Your task to perform on an android device: Go to Yahoo.com Image 0: 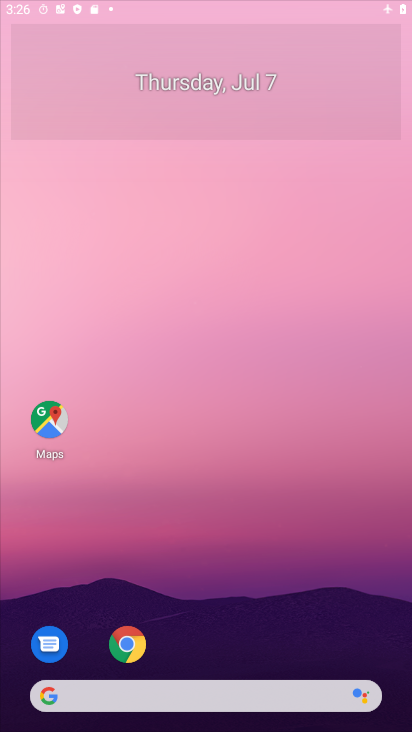
Step 0: press home button
Your task to perform on an android device: Go to Yahoo.com Image 1: 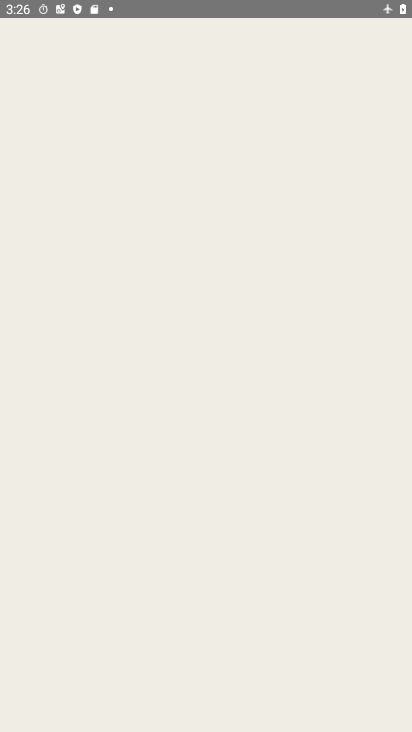
Step 1: press home button
Your task to perform on an android device: Go to Yahoo.com Image 2: 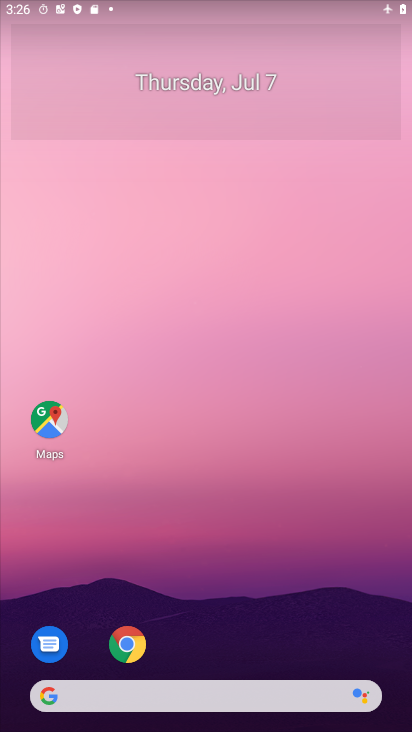
Step 2: click (135, 640)
Your task to perform on an android device: Go to Yahoo.com Image 3: 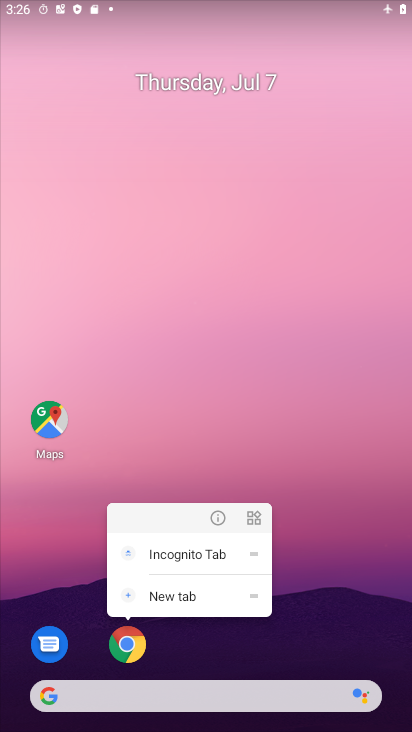
Step 3: click (333, 520)
Your task to perform on an android device: Go to Yahoo.com Image 4: 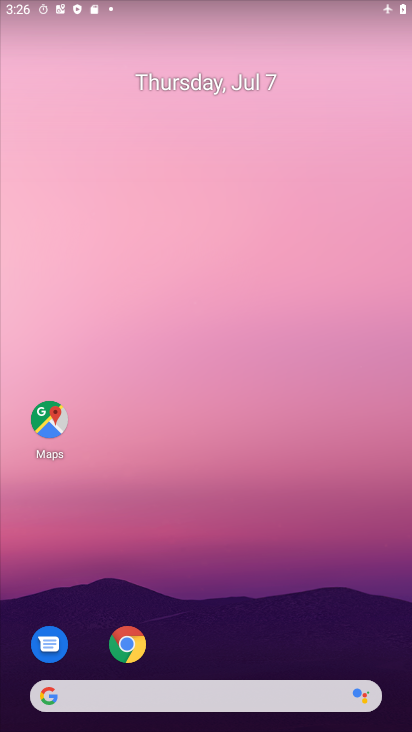
Step 4: click (135, 647)
Your task to perform on an android device: Go to Yahoo.com Image 5: 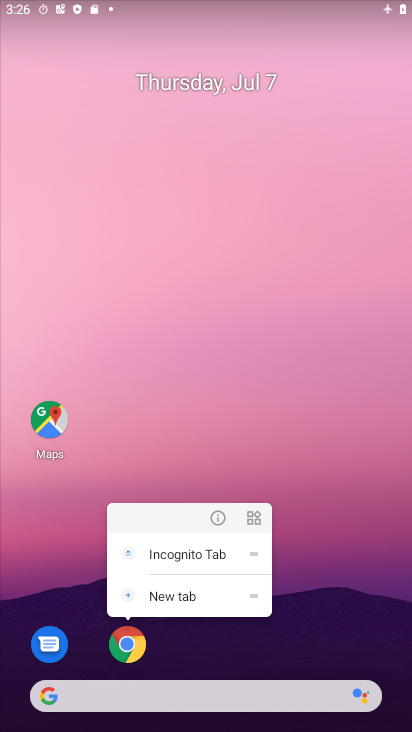
Step 5: click (149, 653)
Your task to perform on an android device: Go to Yahoo.com Image 6: 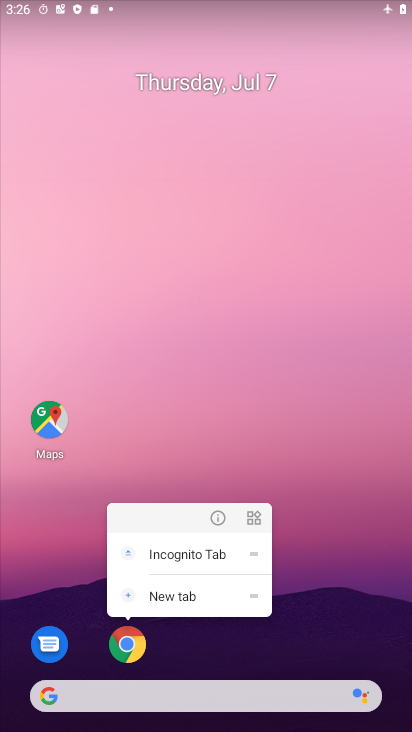
Step 6: click (148, 652)
Your task to perform on an android device: Go to Yahoo.com Image 7: 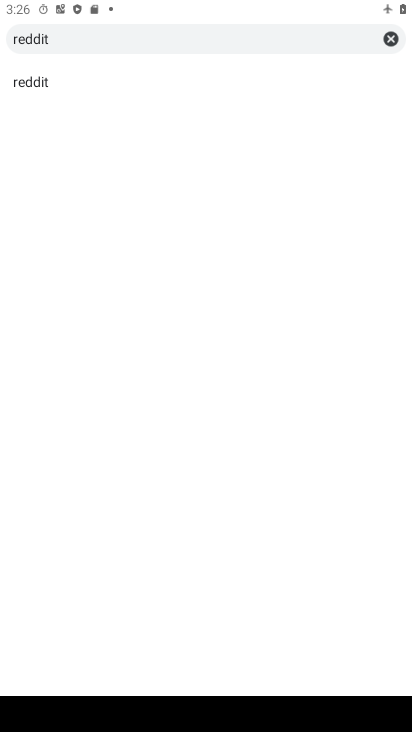
Step 7: click (399, 41)
Your task to perform on an android device: Go to Yahoo.com Image 8: 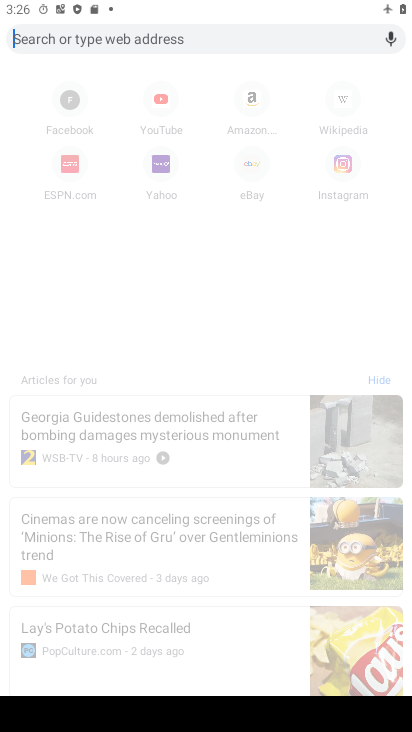
Step 8: click (171, 167)
Your task to perform on an android device: Go to Yahoo.com Image 9: 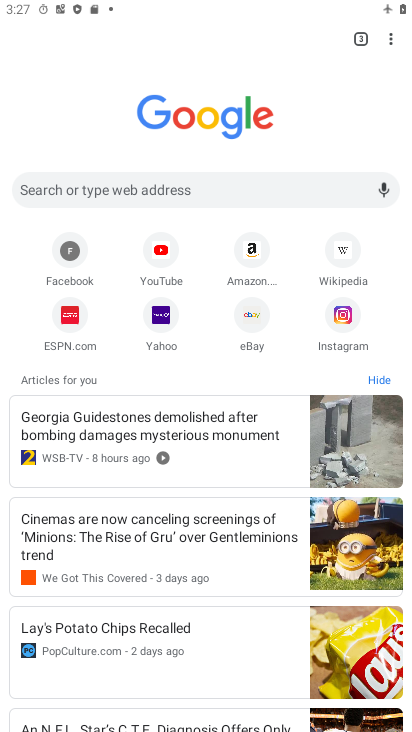
Step 9: click (169, 314)
Your task to perform on an android device: Go to Yahoo.com Image 10: 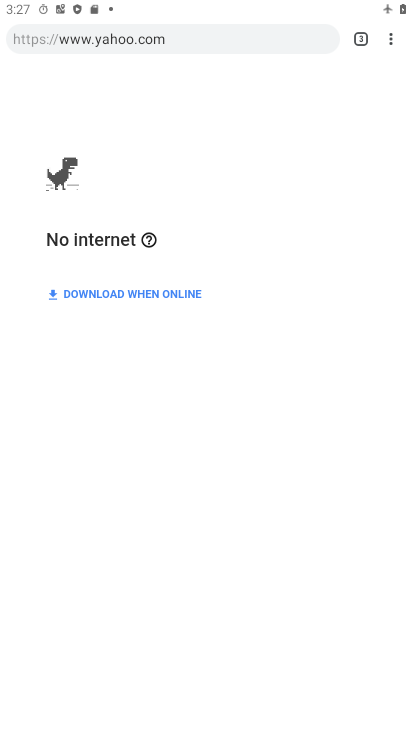
Step 10: task complete